Your task to perform on an android device: What's the weather going to be tomorrow? Image 0: 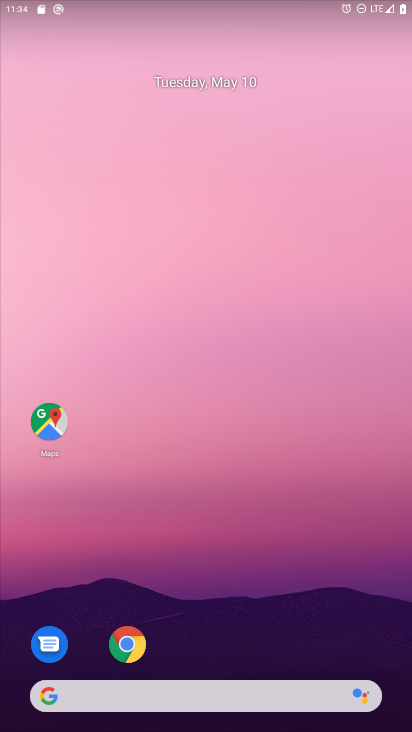
Step 0: drag from (216, 678) to (276, 391)
Your task to perform on an android device: What's the weather going to be tomorrow? Image 1: 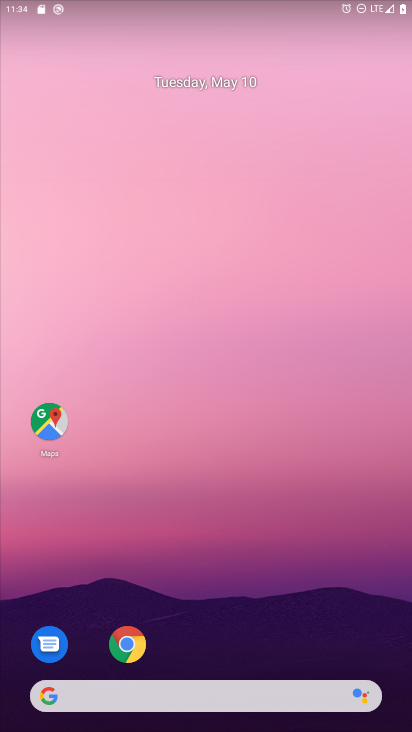
Step 1: drag from (252, 676) to (347, 198)
Your task to perform on an android device: What's the weather going to be tomorrow? Image 2: 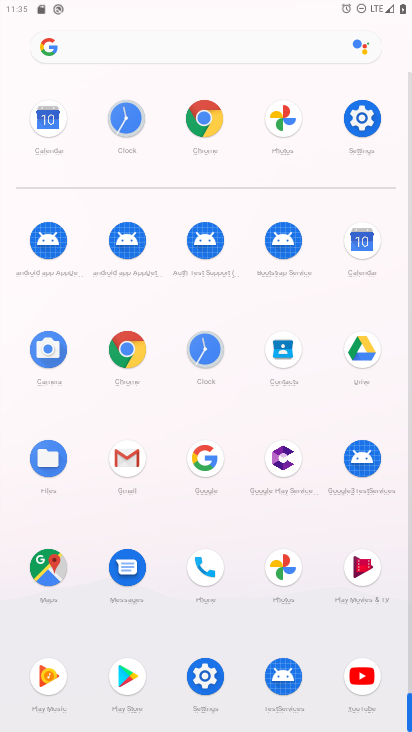
Step 2: click (209, 469)
Your task to perform on an android device: What's the weather going to be tomorrow? Image 3: 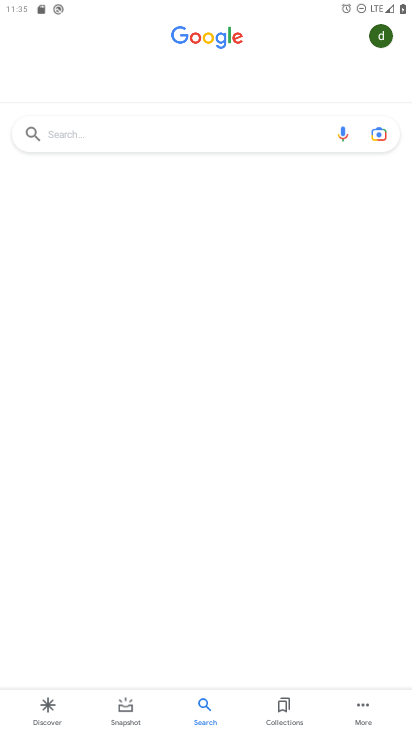
Step 3: click (205, 121)
Your task to perform on an android device: What's the weather going to be tomorrow? Image 4: 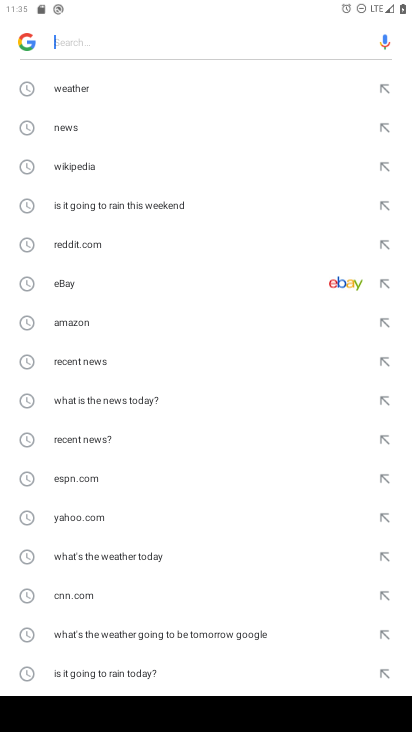
Step 4: click (197, 73)
Your task to perform on an android device: What's the weather going to be tomorrow? Image 5: 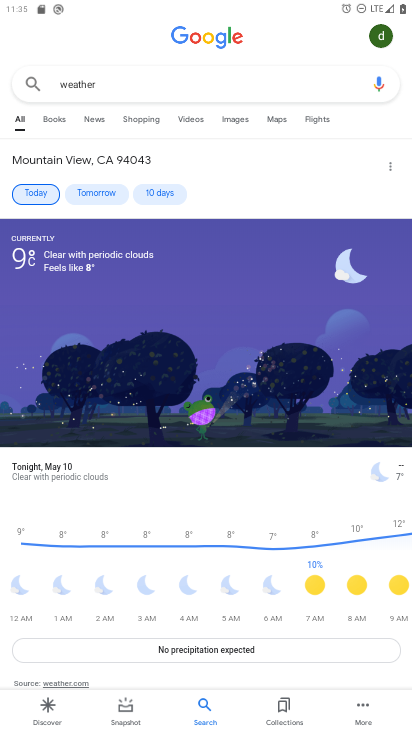
Step 5: task complete